Your task to perform on an android device: See recent photos Image 0: 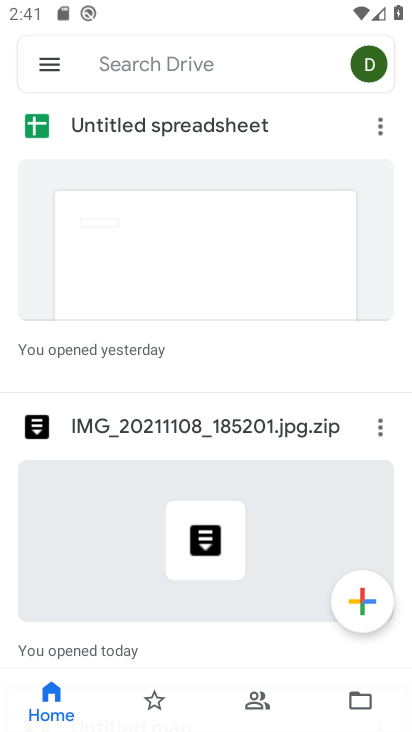
Step 0: press home button
Your task to perform on an android device: See recent photos Image 1: 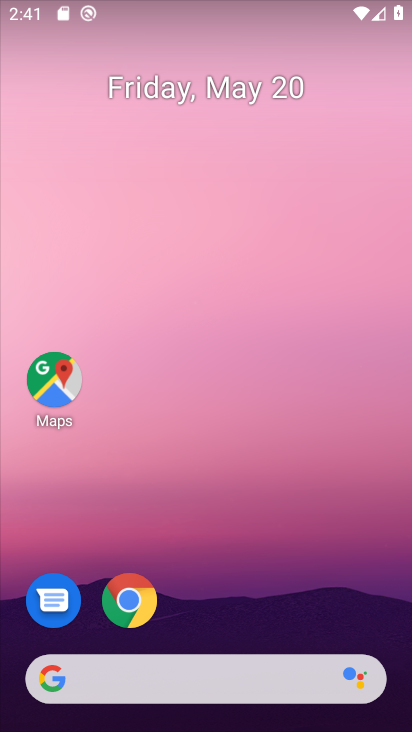
Step 1: drag from (337, 601) to (318, 249)
Your task to perform on an android device: See recent photos Image 2: 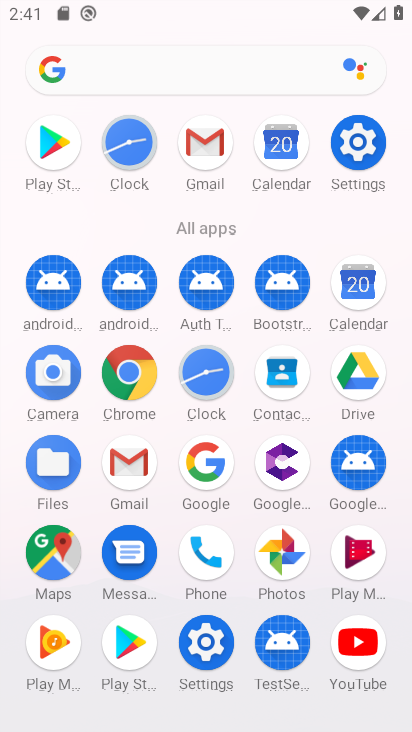
Step 2: drag from (390, 599) to (386, 409)
Your task to perform on an android device: See recent photos Image 3: 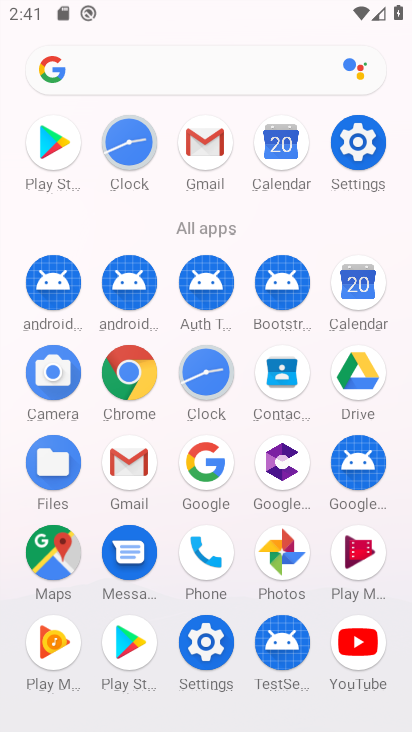
Step 3: click (287, 552)
Your task to perform on an android device: See recent photos Image 4: 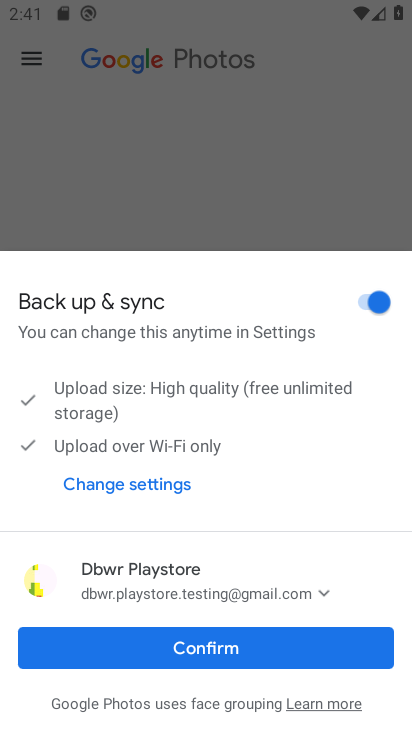
Step 4: click (308, 649)
Your task to perform on an android device: See recent photos Image 5: 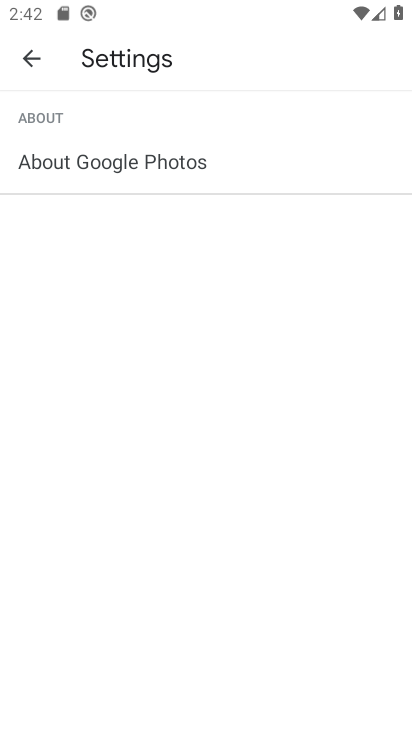
Step 5: click (38, 64)
Your task to perform on an android device: See recent photos Image 6: 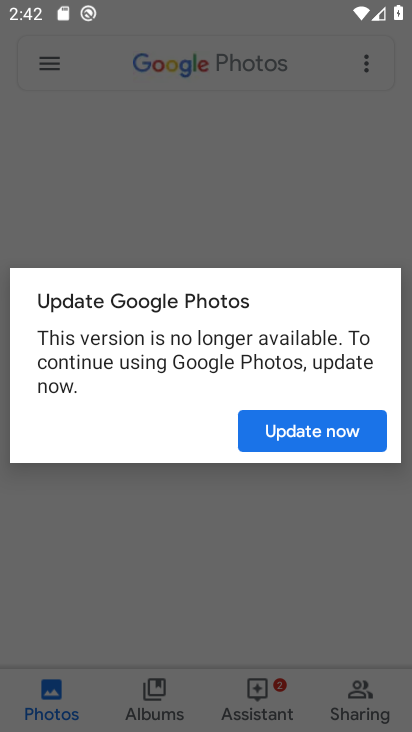
Step 6: click (307, 436)
Your task to perform on an android device: See recent photos Image 7: 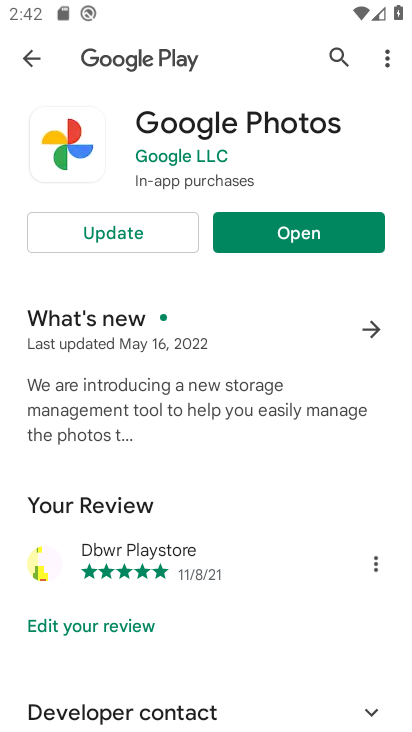
Step 7: click (142, 236)
Your task to perform on an android device: See recent photos Image 8: 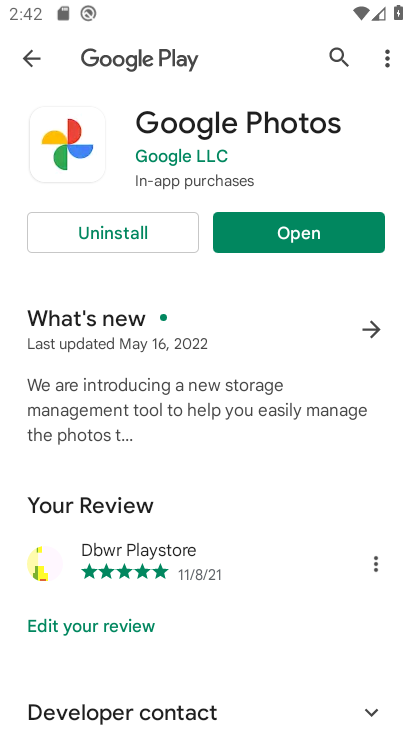
Step 8: click (345, 246)
Your task to perform on an android device: See recent photos Image 9: 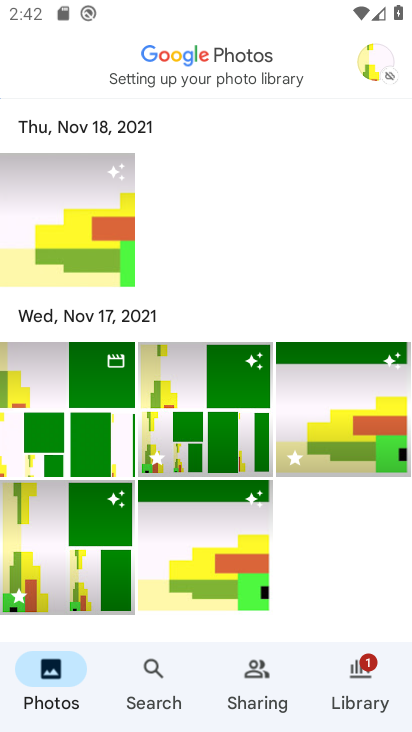
Step 9: click (68, 246)
Your task to perform on an android device: See recent photos Image 10: 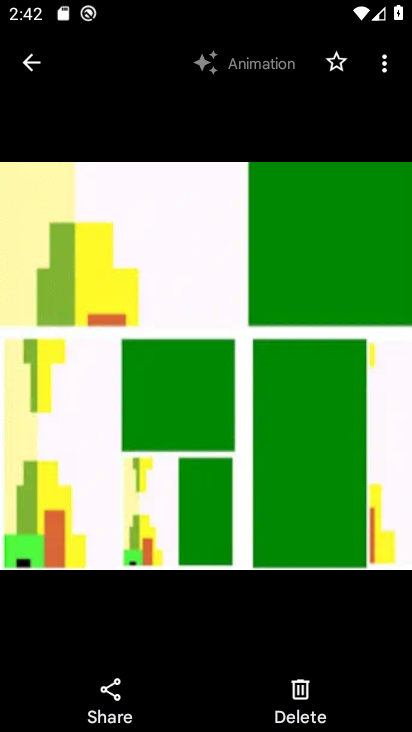
Step 10: task complete